Your task to perform on an android device: toggle improve location accuracy Image 0: 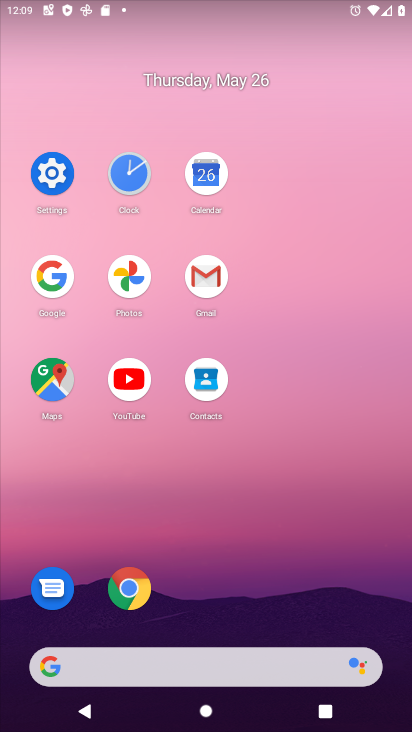
Step 0: click (56, 177)
Your task to perform on an android device: toggle improve location accuracy Image 1: 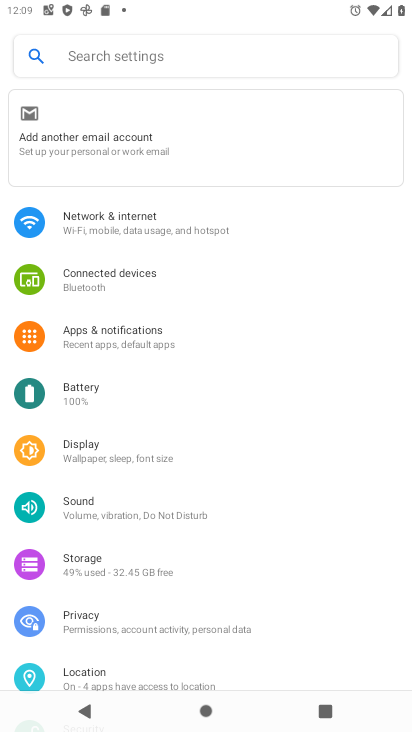
Step 1: drag from (177, 596) to (256, 362)
Your task to perform on an android device: toggle improve location accuracy Image 2: 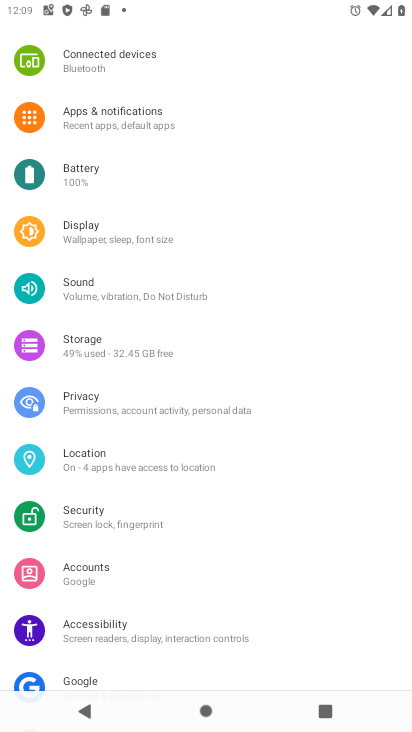
Step 2: click (197, 456)
Your task to perform on an android device: toggle improve location accuracy Image 3: 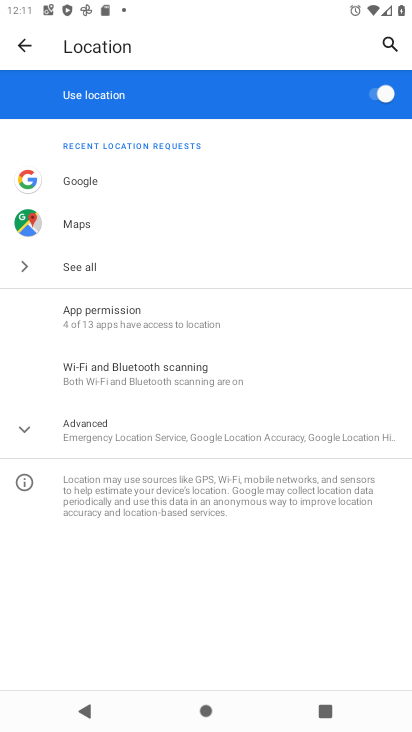
Step 3: click (197, 440)
Your task to perform on an android device: toggle improve location accuracy Image 4: 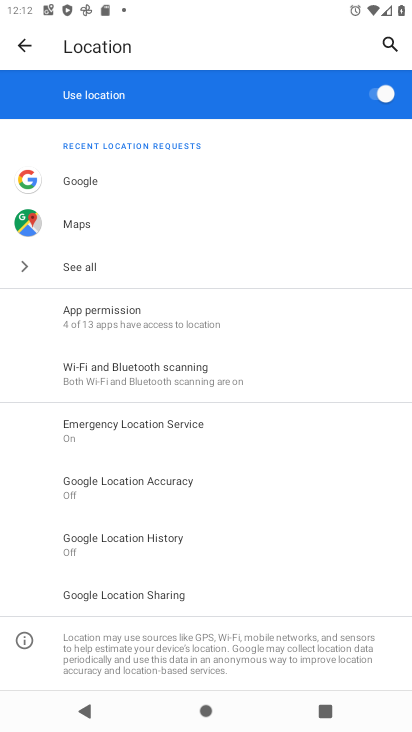
Step 4: click (197, 481)
Your task to perform on an android device: toggle improve location accuracy Image 5: 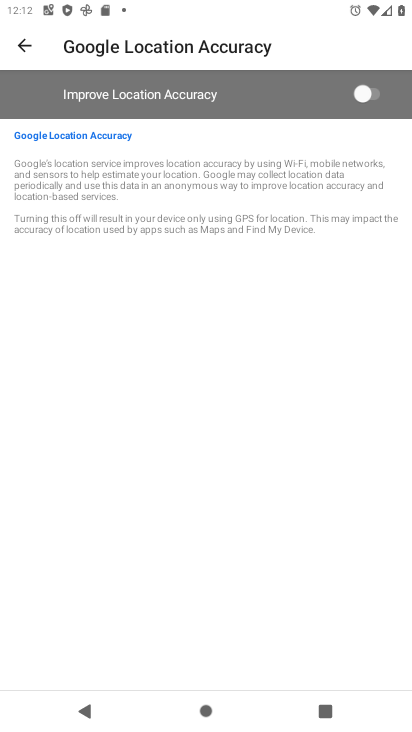
Step 5: click (347, 93)
Your task to perform on an android device: toggle improve location accuracy Image 6: 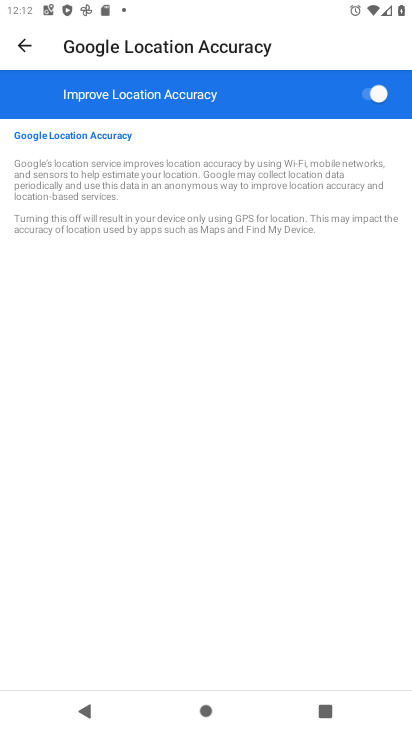
Step 6: task complete